Your task to perform on an android device: Go to Wikipedia Image 0: 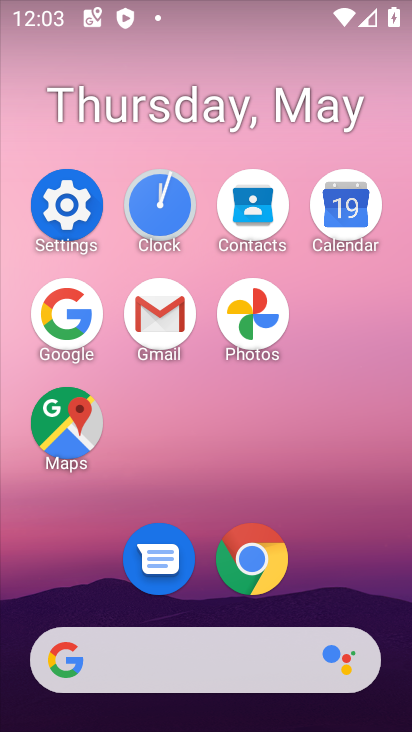
Step 0: click (274, 562)
Your task to perform on an android device: Go to Wikipedia Image 1: 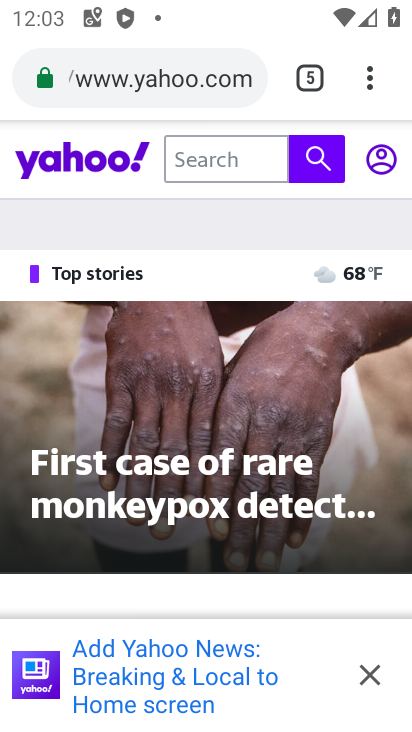
Step 1: click (306, 83)
Your task to perform on an android device: Go to Wikipedia Image 2: 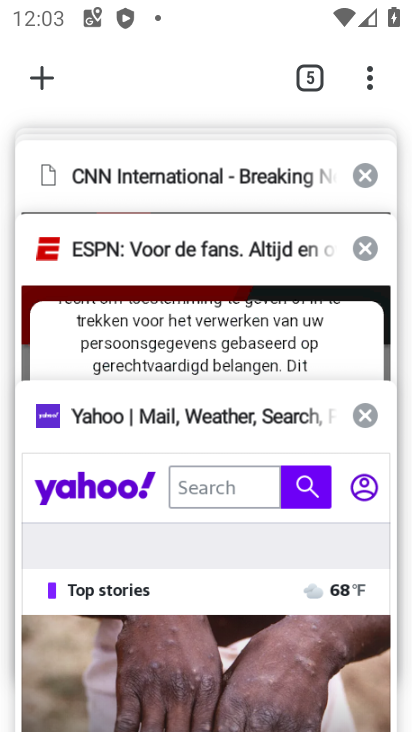
Step 2: drag from (189, 224) to (191, 476)
Your task to perform on an android device: Go to Wikipedia Image 3: 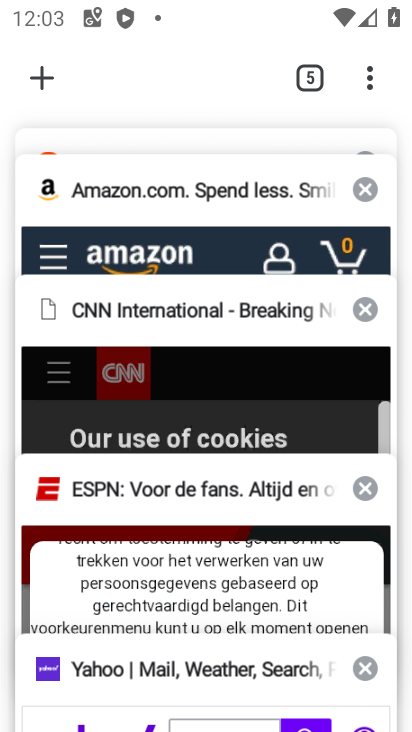
Step 3: drag from (145, 263) to (153, 481)
Your task to perform on an android device: Go to Wikipedia Image 4: 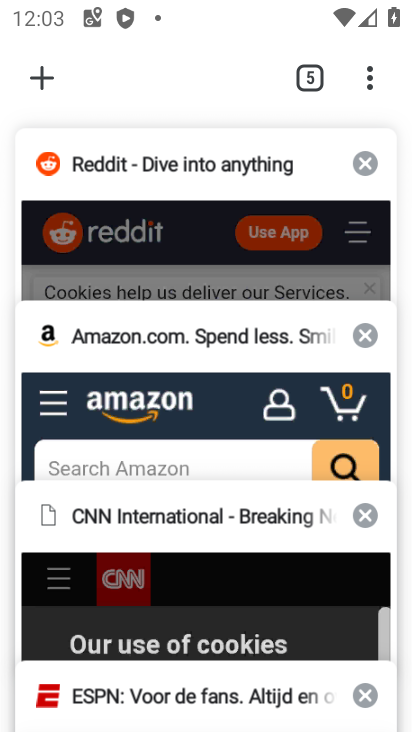
Step 4: click (51, 74)
Your task to perform on an android device: Go to Wikipedia Image 5: 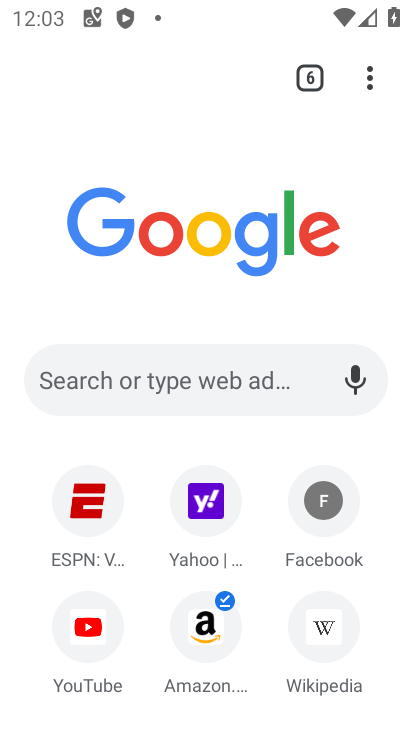
Step 5: click (307, 637)
Your task to perform on an android device: Go to Wikipedia Image 6: 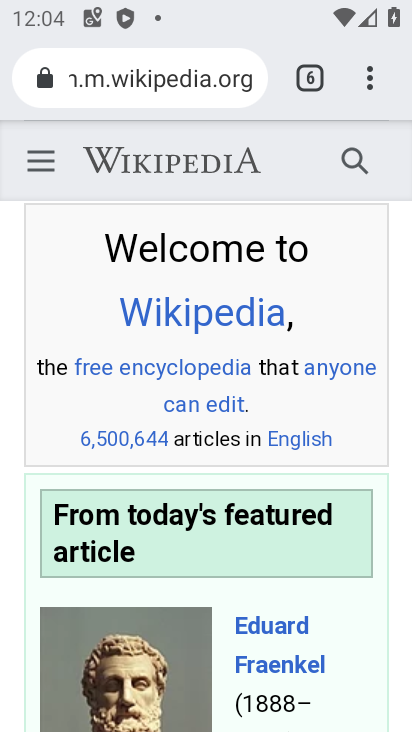
Step 6: task complete